Your task to perform on an android device: open device folders in google photos Image 0: 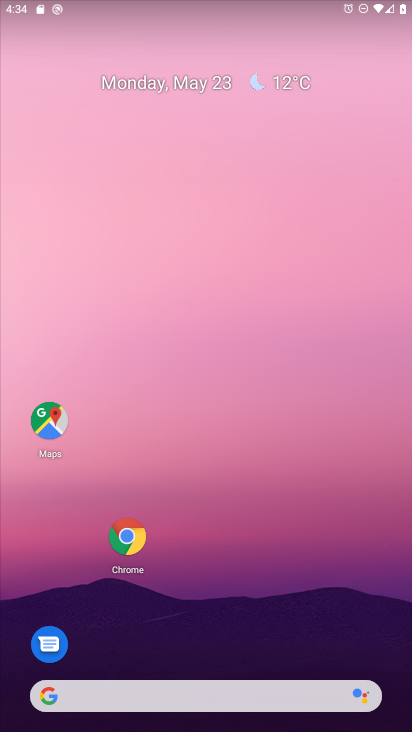
Step 0: drag from (299, 612) to (343, 161)
Your task to perform on an android device: open device folders in google photos Image 1: 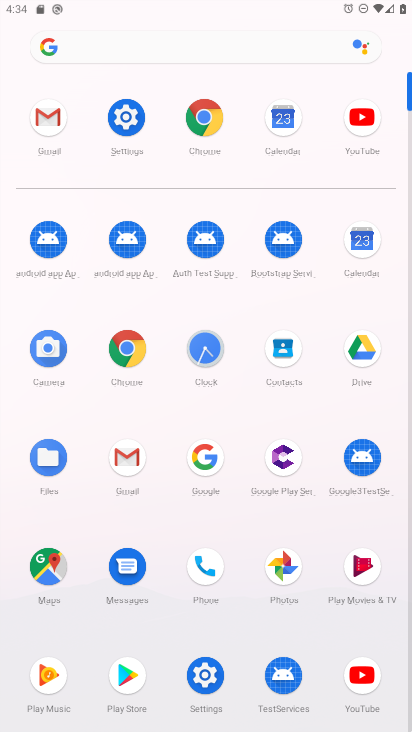
Step 1: click (286, 580)
Your task to perform on an android device: open device folders in google photos Image 2: 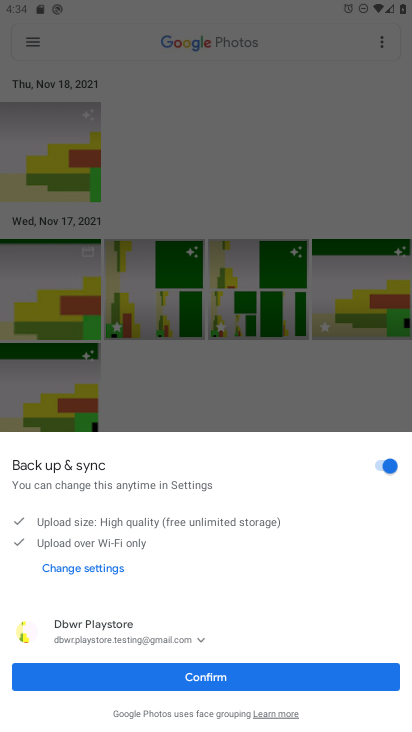
Step 2: click (263, 684)
Your task to perform on an android device: open device folders in google photos Image 3: 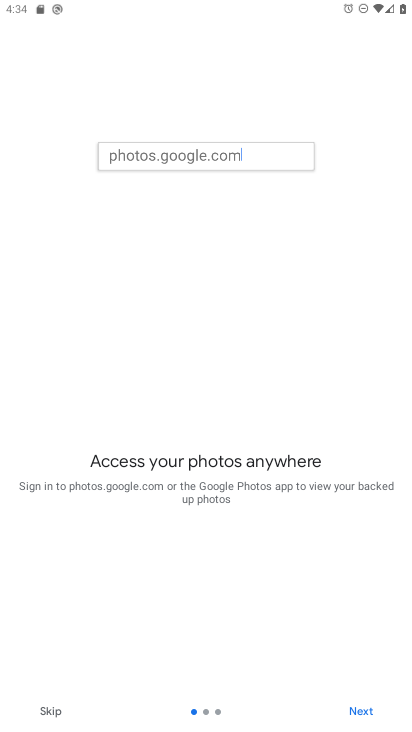
Step 3: click (51, 710)
Your task to perform on an android device: open device folders in google photos Image 4: 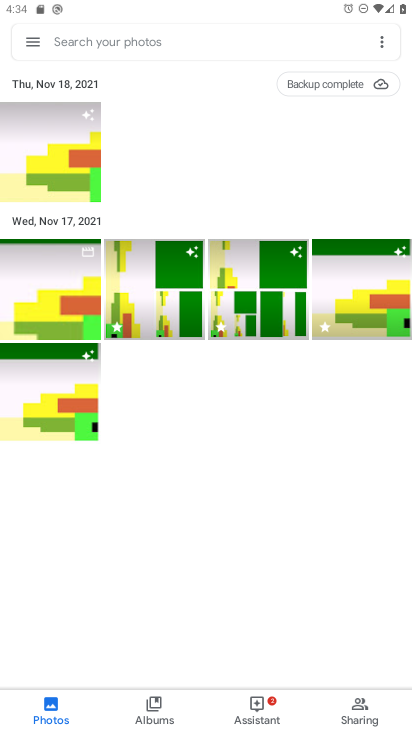
Step 4: click (33, 40)
Your task to perform on an android device: open device folders in google photos Image 5: 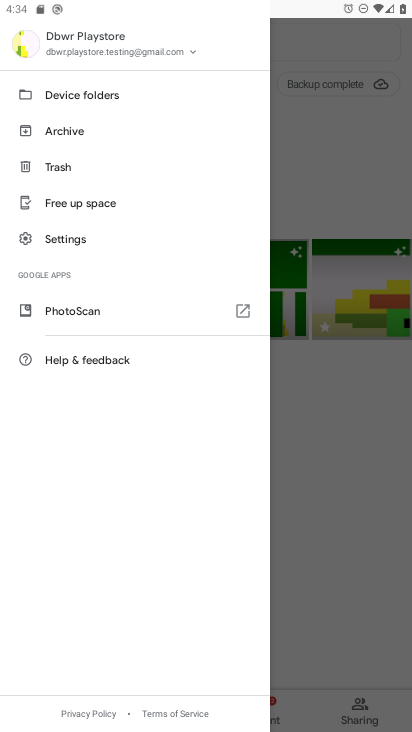
Step 5: click (94, 94)
Your task to perform on an android device: open device folders in google photos Image 6: 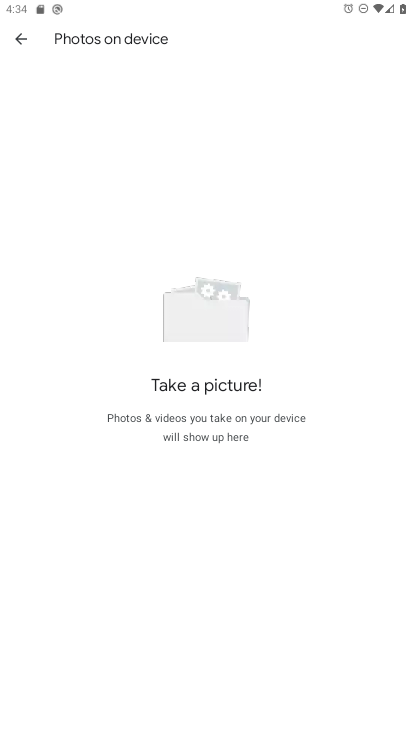
Step 6: task complete